Your task to perform on an android device: Go to Yahoo.com Image 0: 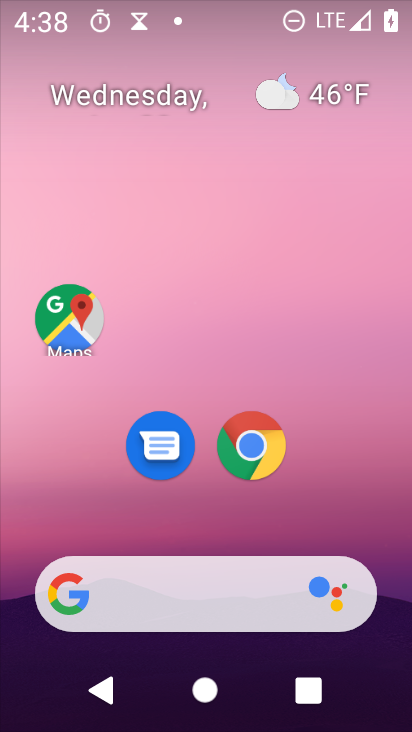
Step 0: drag from (317, 463) to (231, 8)
Your task to perform on an android device: Go to Yahoo.com Image 1: 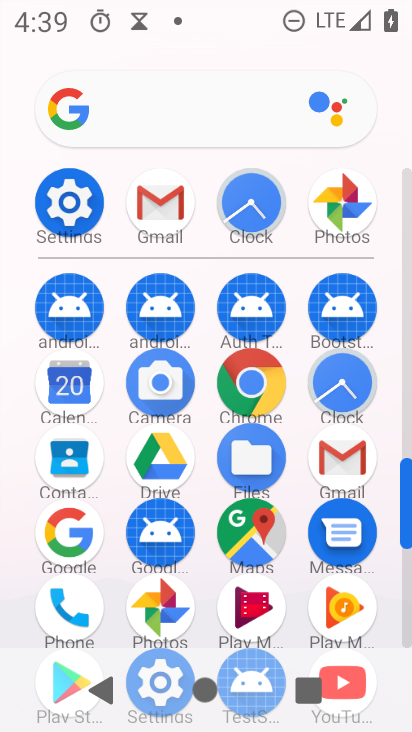
Step 1: click (254, 384)
Your task to perform on an android device: Go to Yahoo.com Image 2: 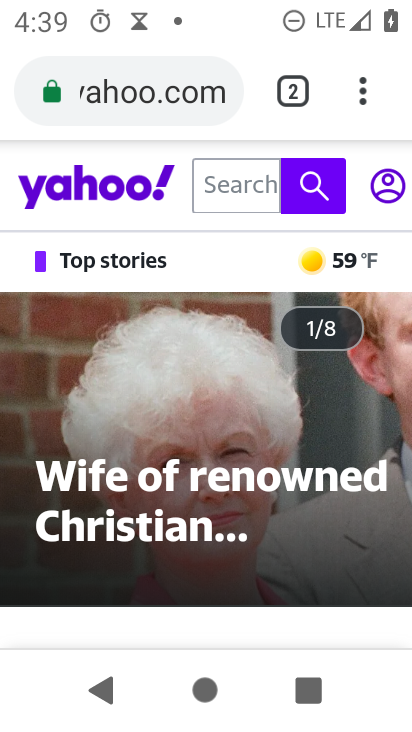
Step 2: click (209, 103)
Your task to perform on an android device: Go to Yahoo.com Image 3: 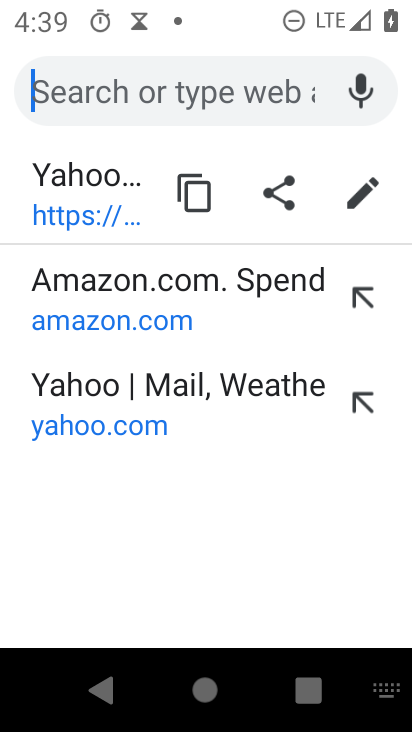
Step 3: click (99, 182)
Your task to perform on an android device: Go to Yahoo.com Image 4: 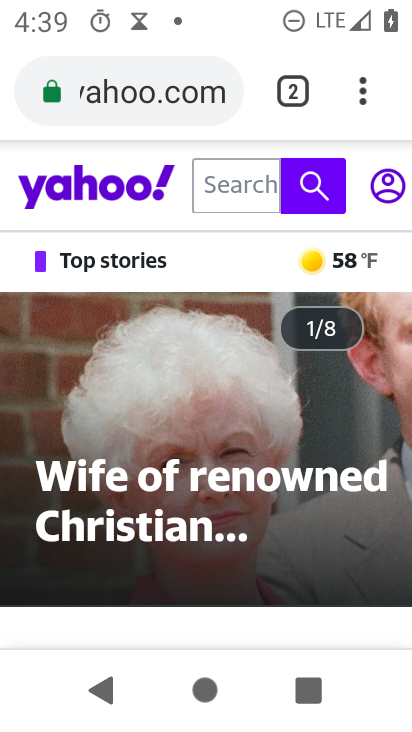
Step 4: task complete